Your task to perform on an android device: Go to display settings Image 0: 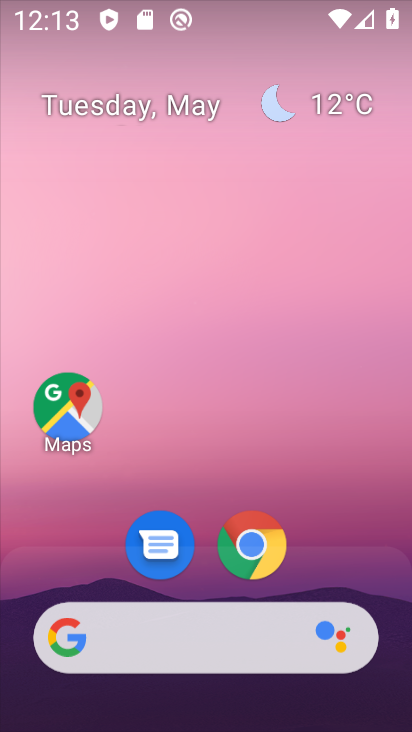
Step 0: drag from (361, 583) to (301, 172)
Your task to perform on an android device: Go to display settings Image 1: 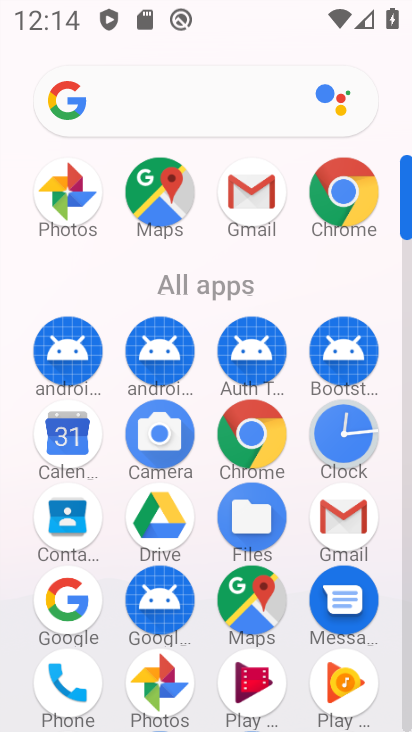
Step 1: drag from (188, 622) to (190, 229)
Your task to perform on an android device: Go to display settings Image 2: 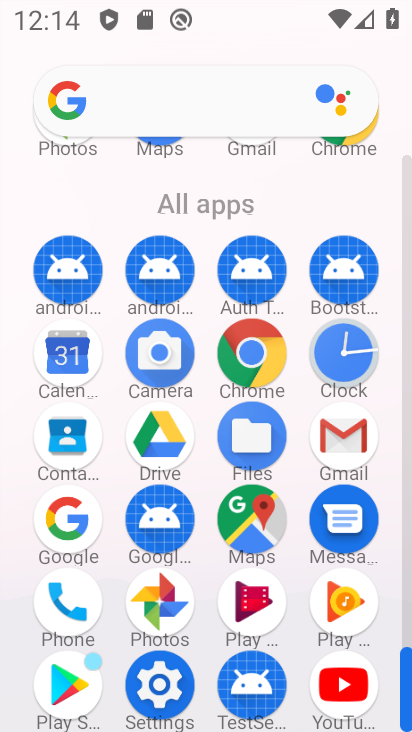
Step 2: click (165, 655)
Your task to perform on an android device: Go to display settings Image 3: 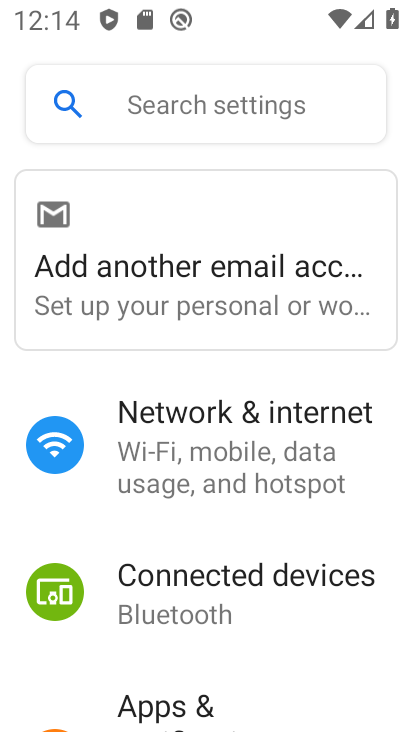
Step 3: drag from (252, 634) to (211, 270)
Your task to perform on an android device: Go to display settings Image 4: 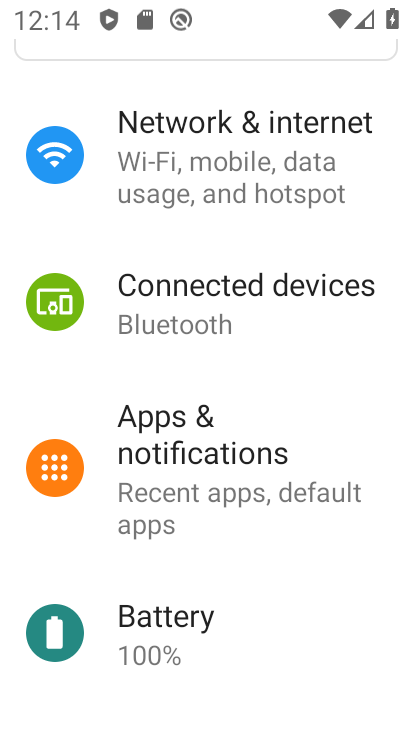
Step 4: drag from (163, 669) to (148, 230)
Your task to perform on an android device: Go to display settings Image 5: 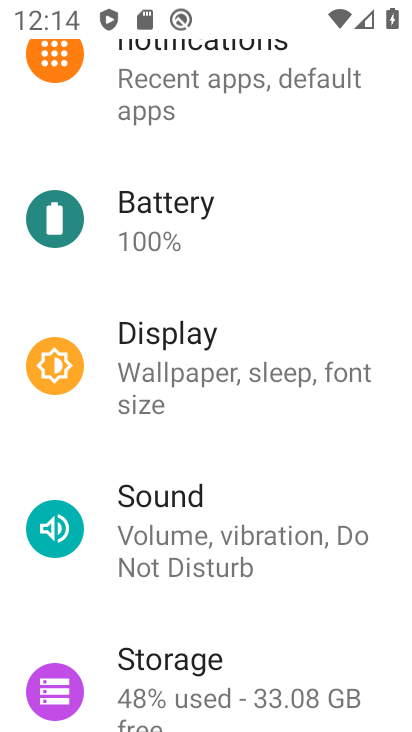
Step 5: click (151, 397)
Your task to perform on an android device: Go to display settings Image 6: 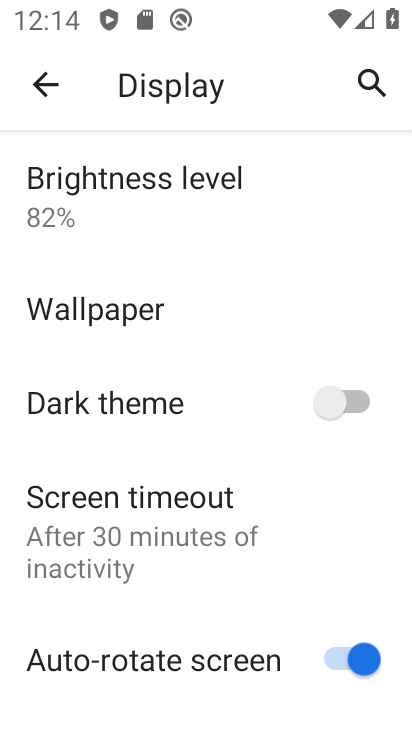
Step 6: task complete